Your task to perform on an android device: refresh tabs in the chrome app Image 0: 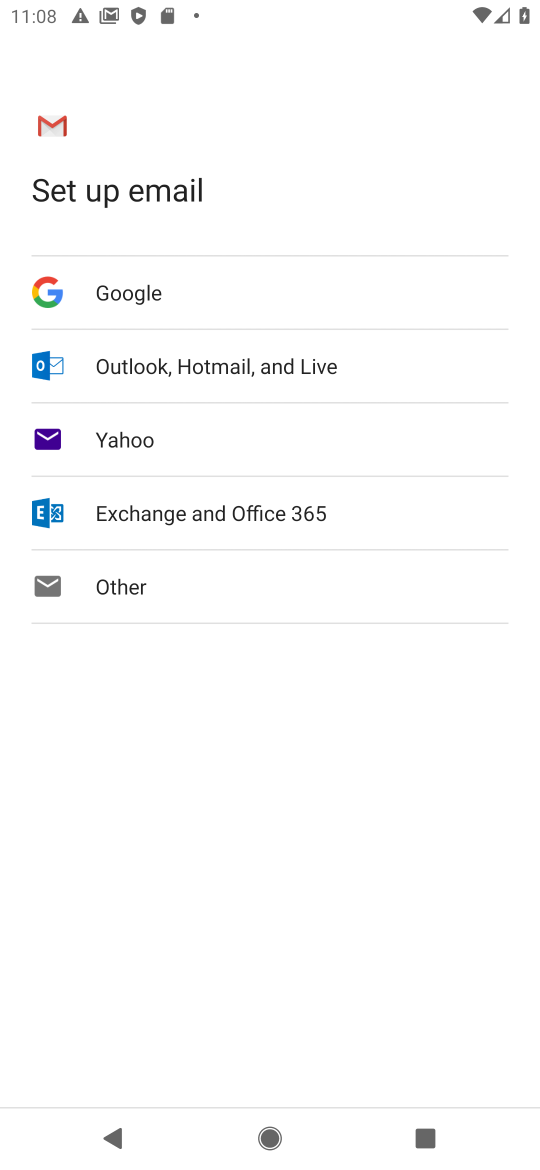
Step 0: press home button
Your task to perform on an android device: refresh tabs in the chrome app Image 1: 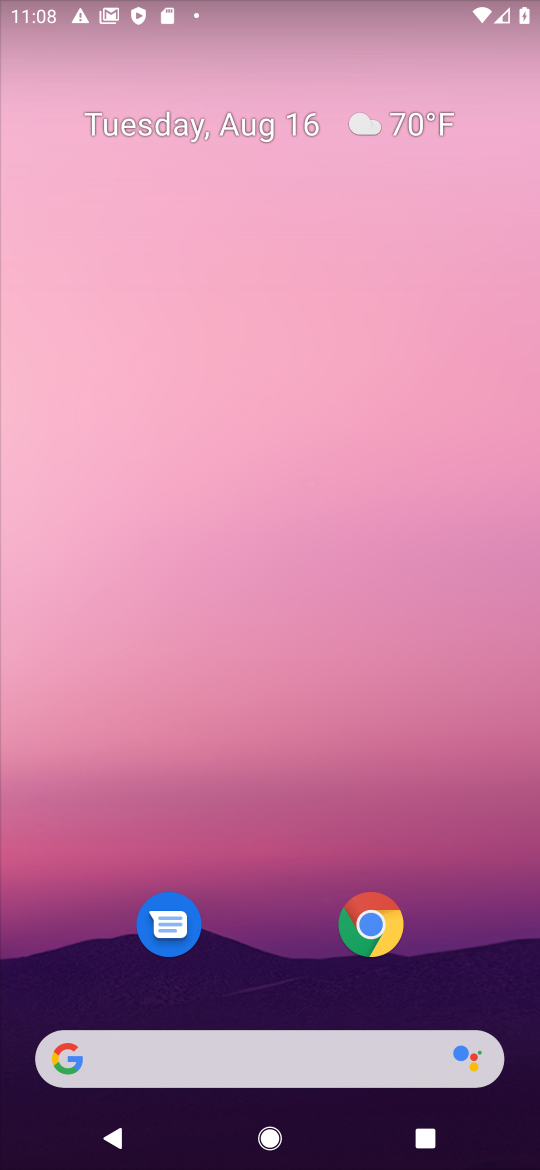
Step 1: click (370, 921)
Your task to perform on an android device: refresh tabs in the chrome app Image 2: 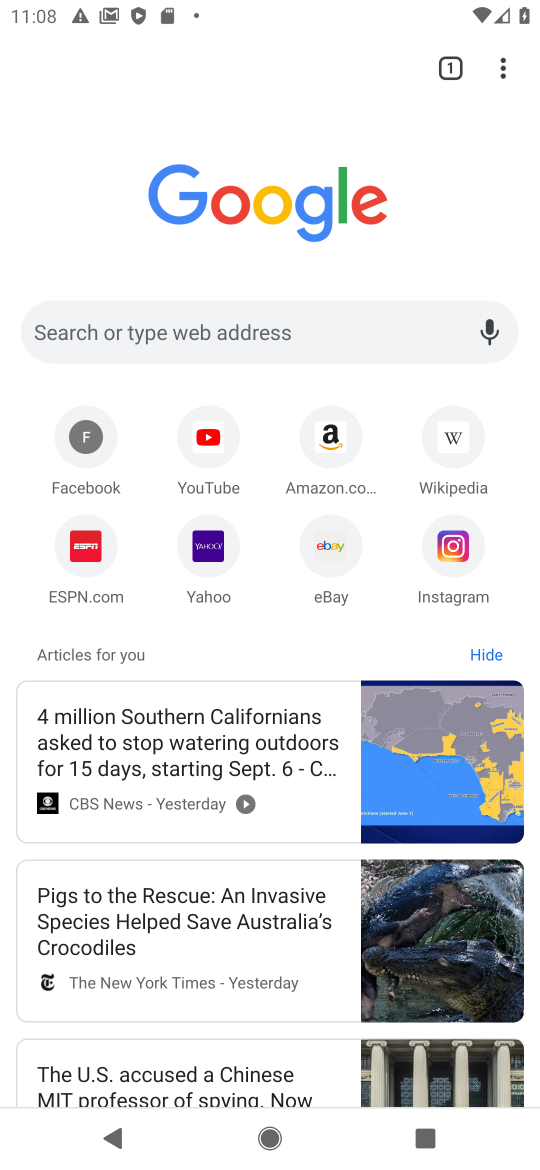
Step 2: click (509, 64)
Your task to perform on an android device: refresh tabs in the chrome app Image 3: 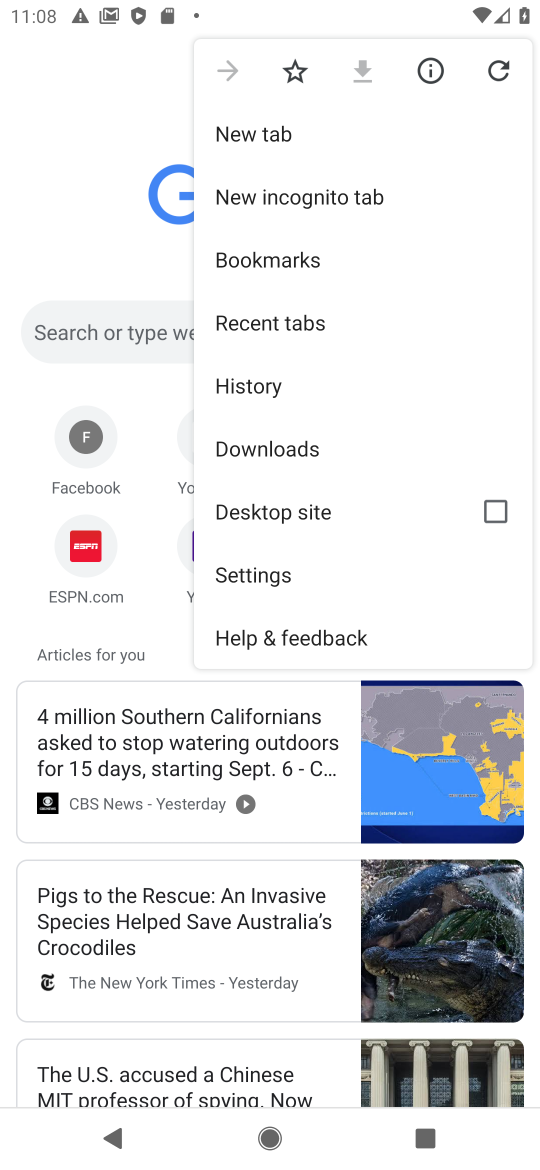
Step 3: click (490, 71)
Your task to perform on an android device: refresh tabs in the chrome app Image 4: 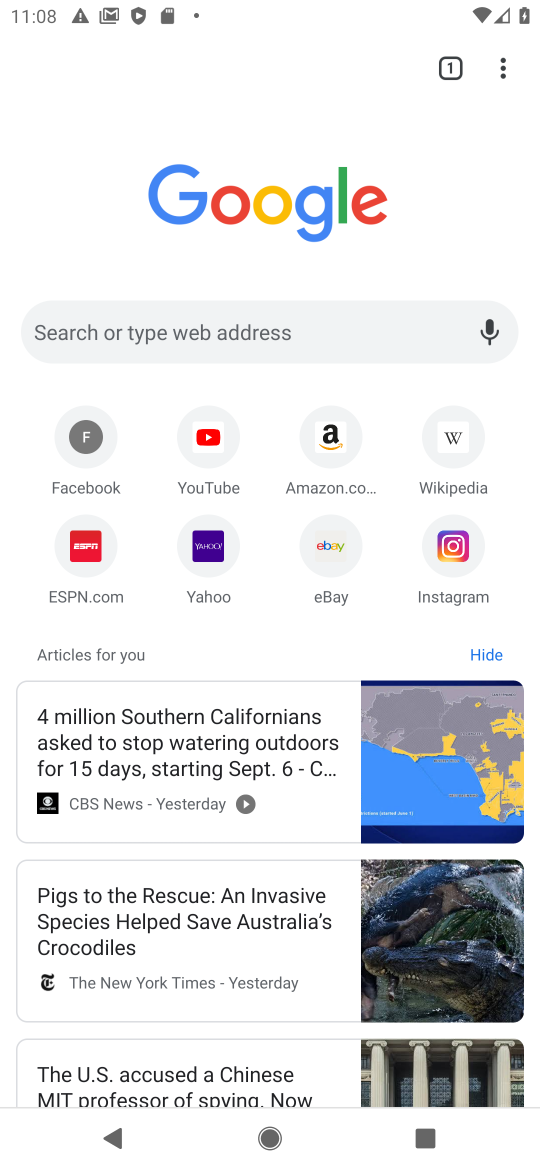
Step 4: task complete